Your task to perform on an android device: Go to network settings Image 0: 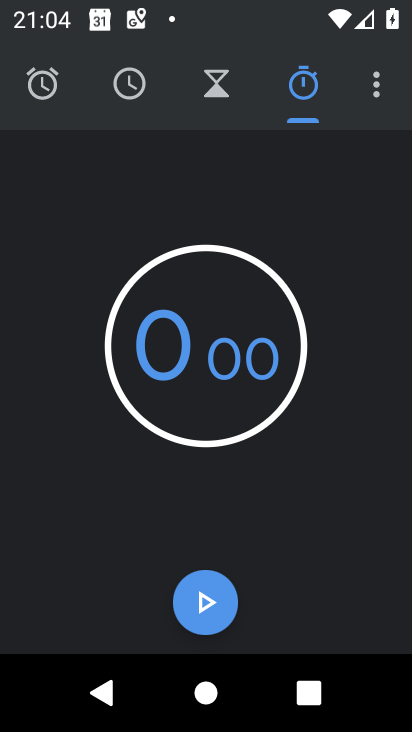
Step 0: press home button
Your task to perform on an android device: Go to network settings Image 1: 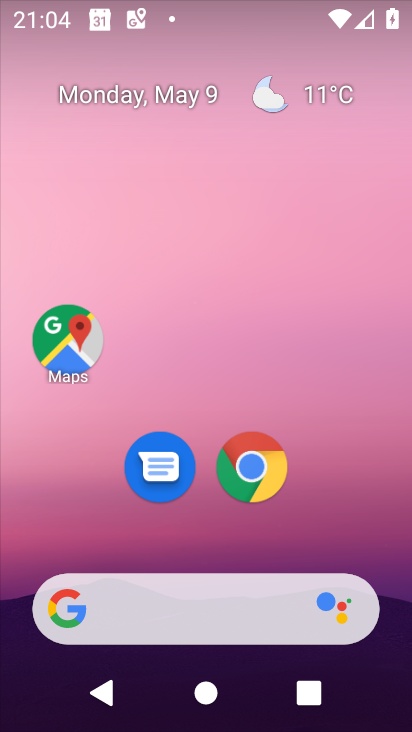
Step 1: drag from (337, 296) to (325, 159)
Your task to perform on an android device: Go to network settings Image 2: 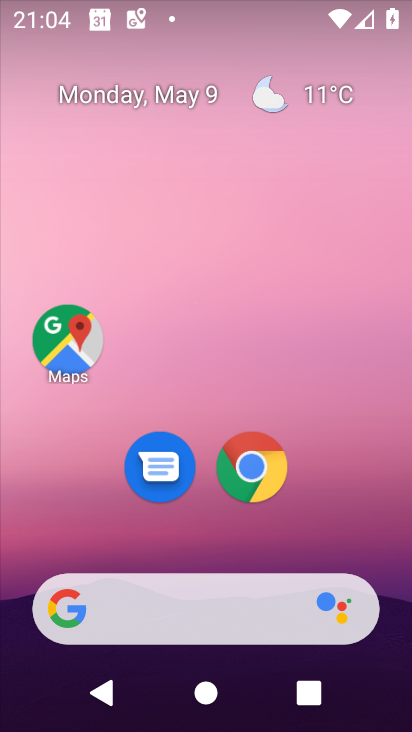
Step 2: drag from (233, 570) to (224, 260)
Your task to perform on an android device: Go to network settings Image 3: 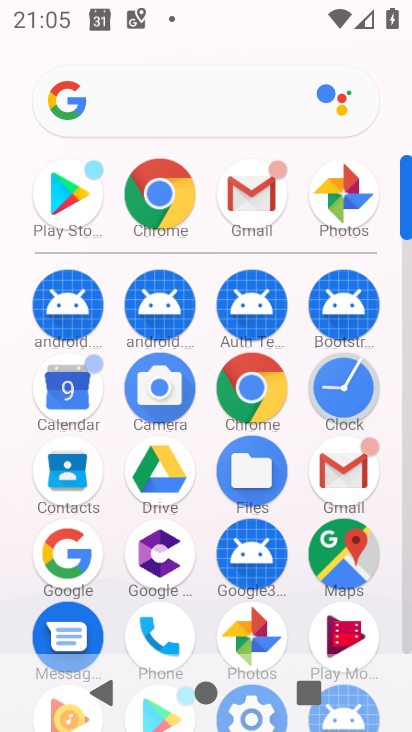
Step 3: drag from (238, 574) to (272, 259)
Your task to perform on an android device: Go to network settings Image 4: 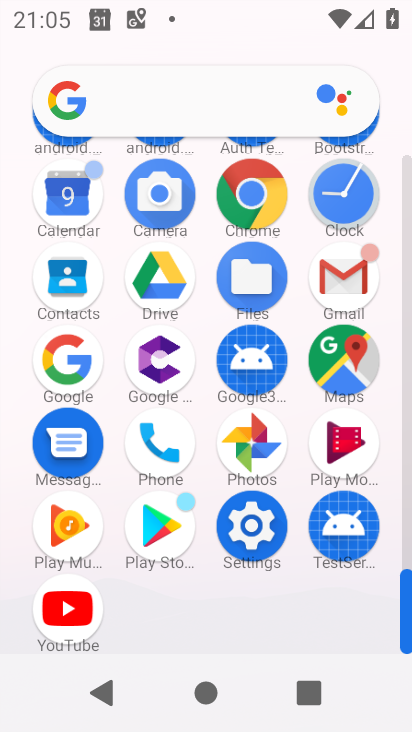
Step 4: click (258, 522)
Your task to perform on an android device: Go to network settings Image 5: 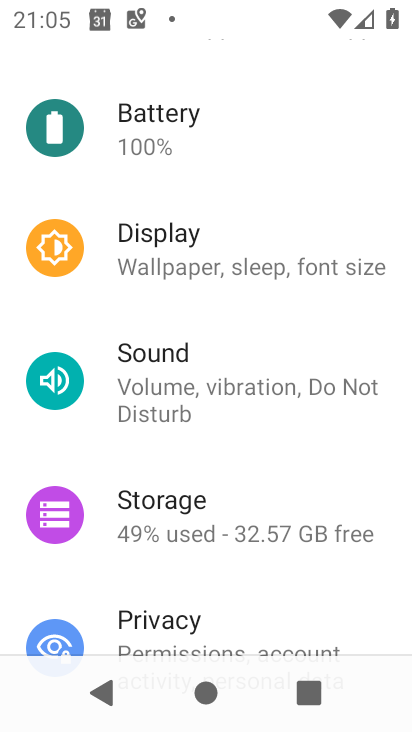
Step 5: drag from (165, 142) to (198, 634)
Your task to perform on an android device: Go to network settings Image 6: 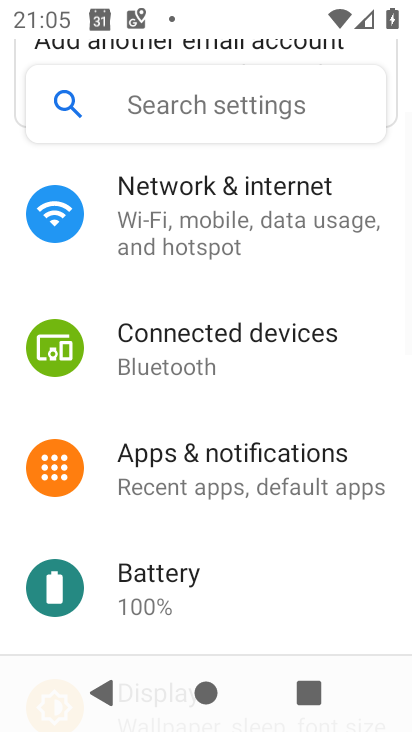
Step 6: drag from (189, 183) to (204, 454)
Your task to perform on an android device: Go to network settings Image 7: 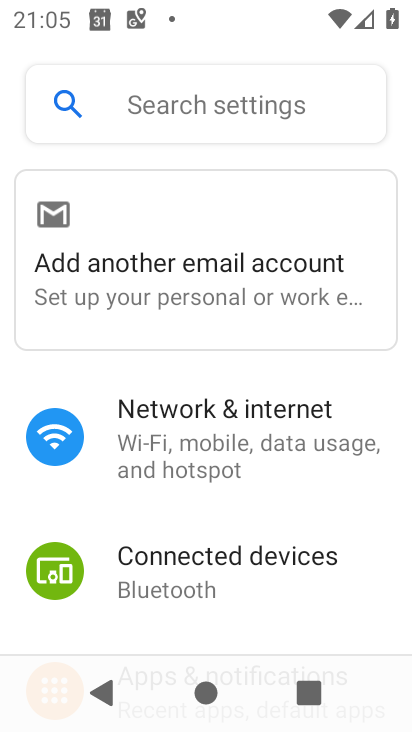
Step 7: click (176, 452)
Your task to perform on an android device: Go to network settings Image 8: 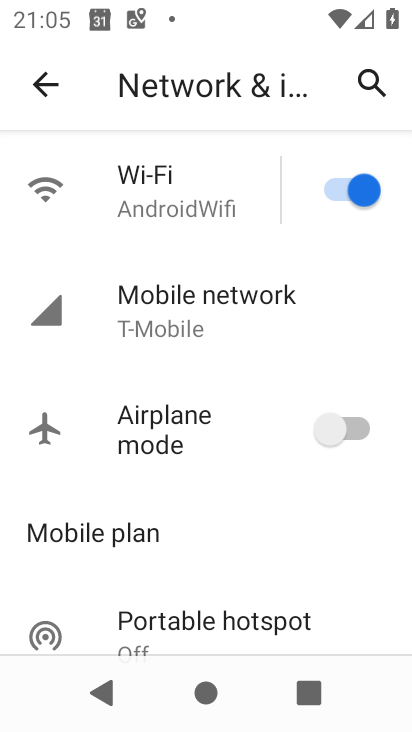
Step 8: task complete